Your task to perform on an android device: Is it going to rain this weekend? Image 0: 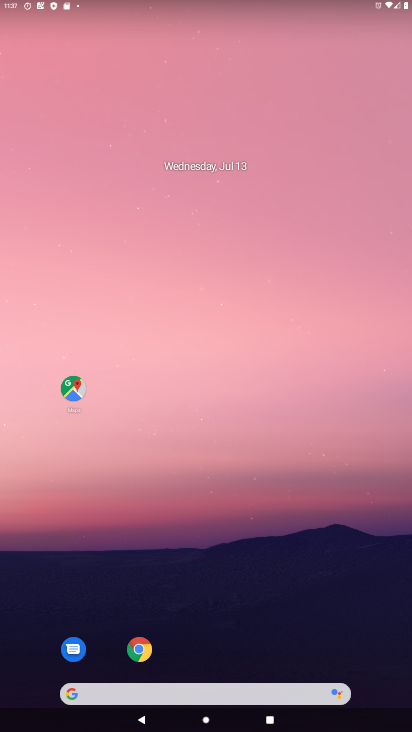
Step 0: drag from (185, 696) to (289, 212)
Your task to perform on an android device: Is it going to rain this weekend? Image 1: 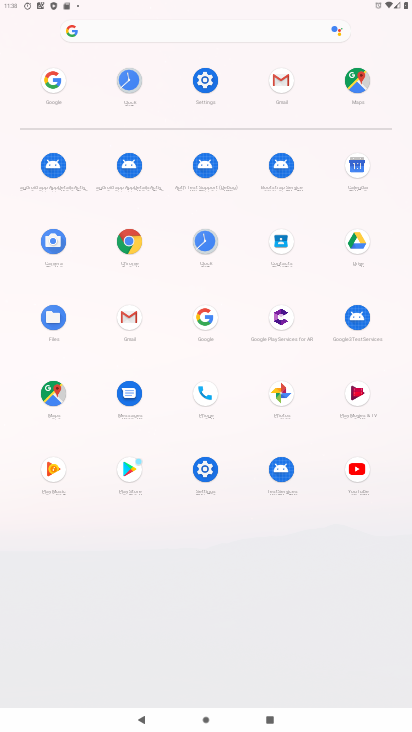
Step 1: click (204, 317)
Your task to perform on an android device: Is it going to rain this weekend? Image 2: 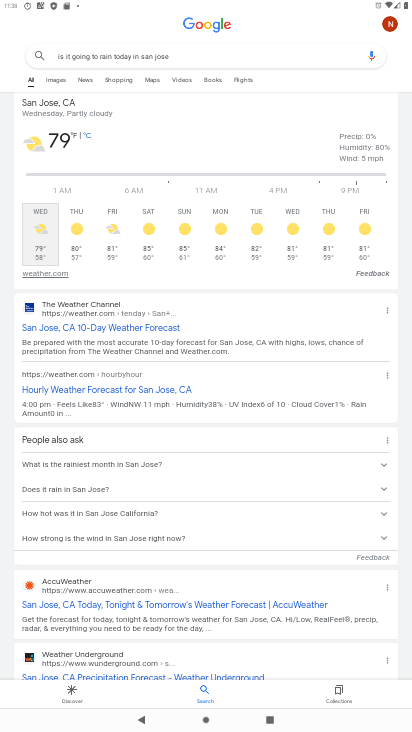
Step 2: click (275, 54)
Your task to perform on an android device: Is it going to rain this weekend? Image 3: 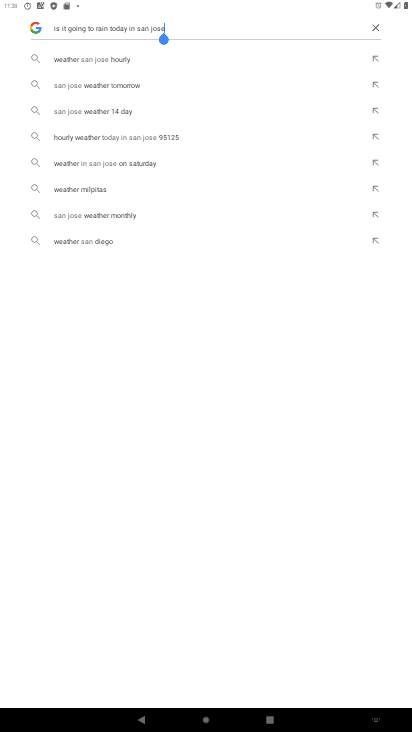
Step 3: click (376, 31)
Your task to perform on an android device: Is it going to rain this weekend? Image 4: 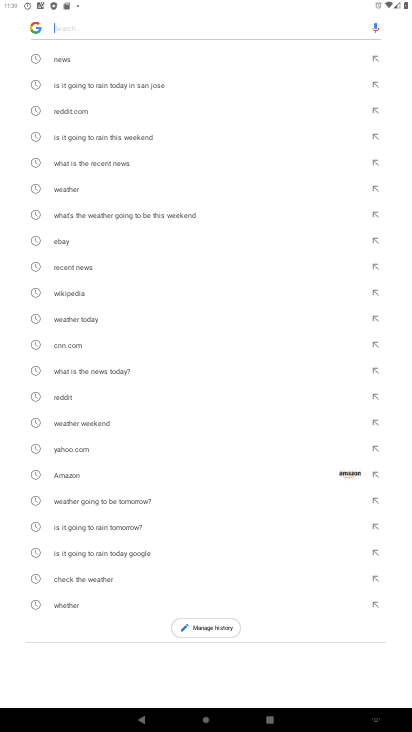
Step 4: type "Is it going to rain this weekend?"
Your task to perform on an android device: Is it going to rain this weekend? Image 5: 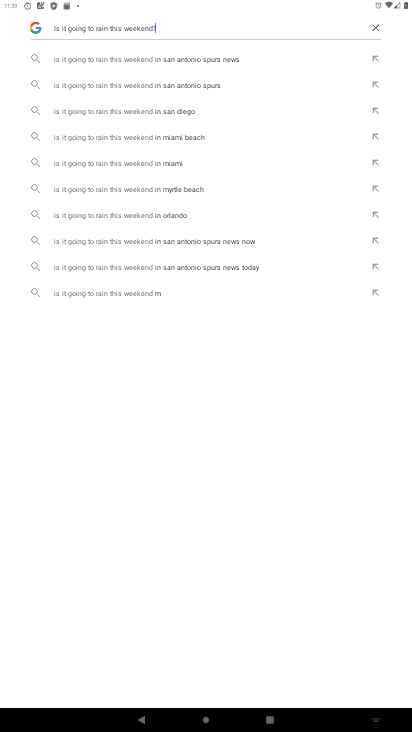
Step 5: click (106, 115)
Your task to perform on an android device: Is it going to rain this weekend? Image 6: 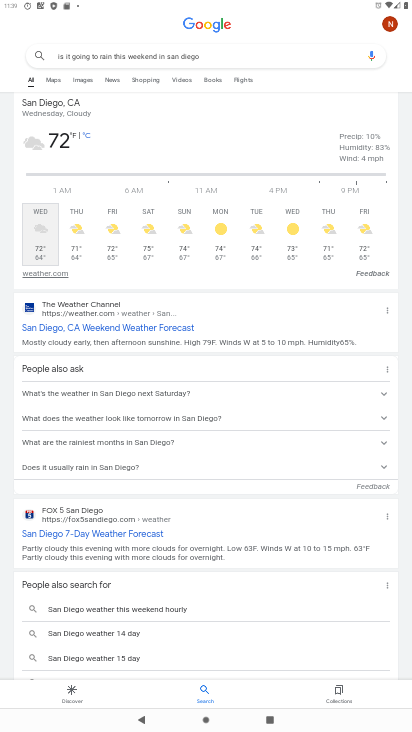
Step 6: task complete